Your task to perform on an android device: Open Youtube and go to "Your channel" Image 0: 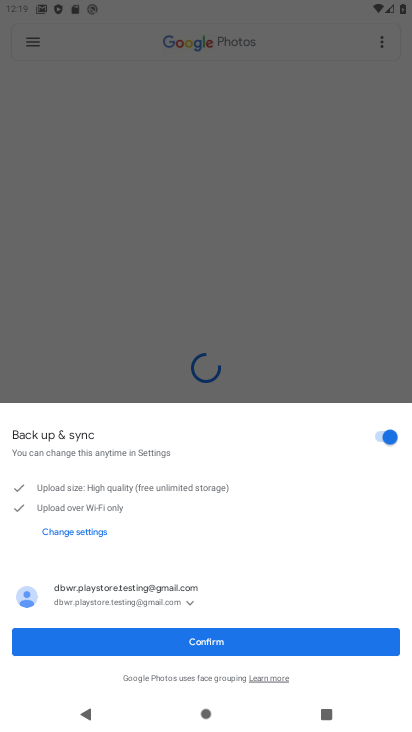
Step 0: click (275, 224)
Your task to perform on an android device: Open Youtube and go to "Your channel" Image 1: 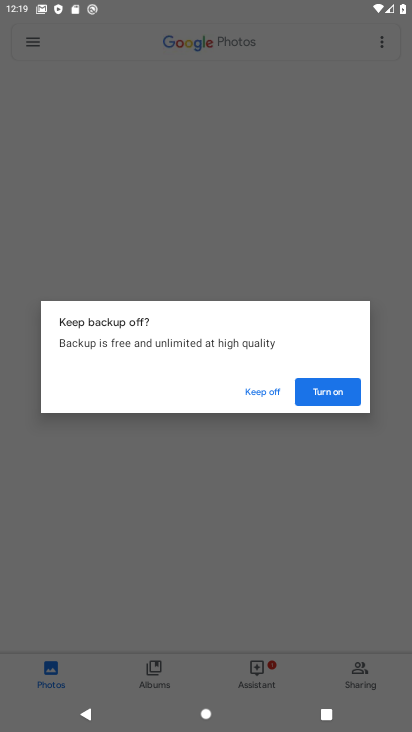
Step 1: press home button
Your task to perform on an android device: Open Youtube and go to "Your channel" Image 2: 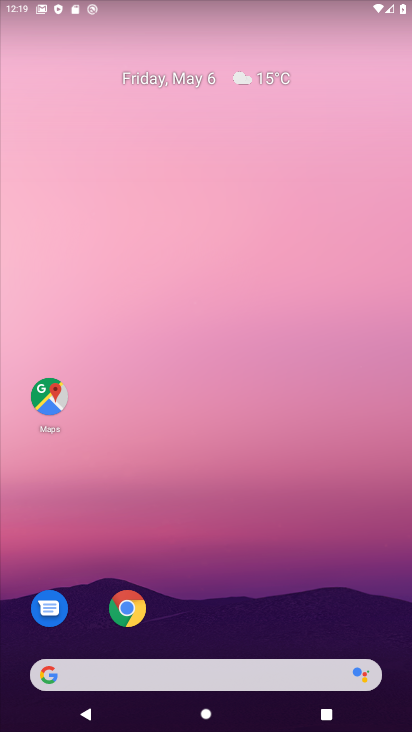
Step 2: drag from (179, 606) to (185, 296)
Your task to perform on an android device: Open Youtube and go to "Your channel" Image 3: 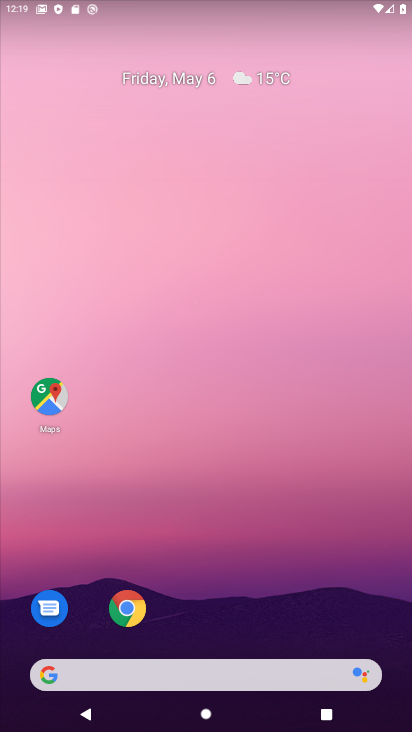
Step 3: drag from (244, 568) to (254, 280)
Your task to perform on an android device: Open Youtube and go to "Your channel" Image 4: 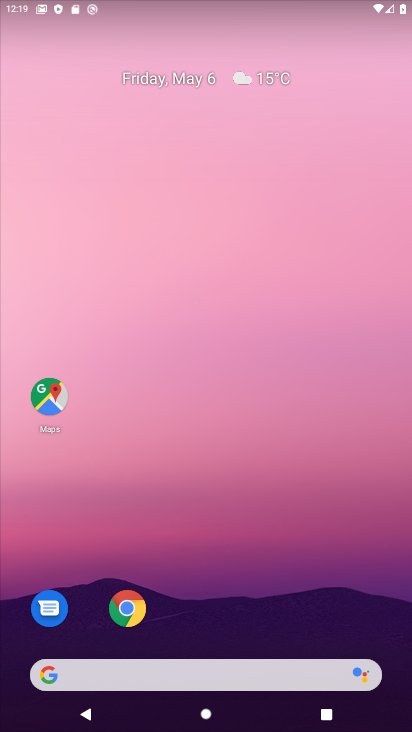
Step 4: drag from (203, 639) to (210, 233)
Your task to perform on an android device: Open Youtube and go to "Your channel" Image 5: 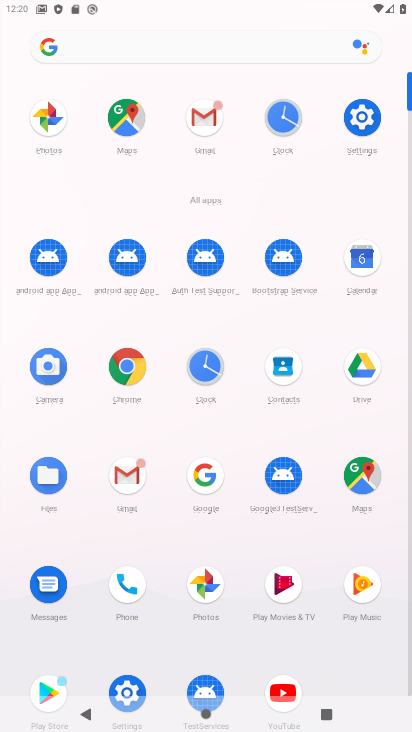
Step 5: drag from (229, 634) to (250, 351)
Your task to perform on an android device: Open Youtube and go to "Your channel" Image 6: 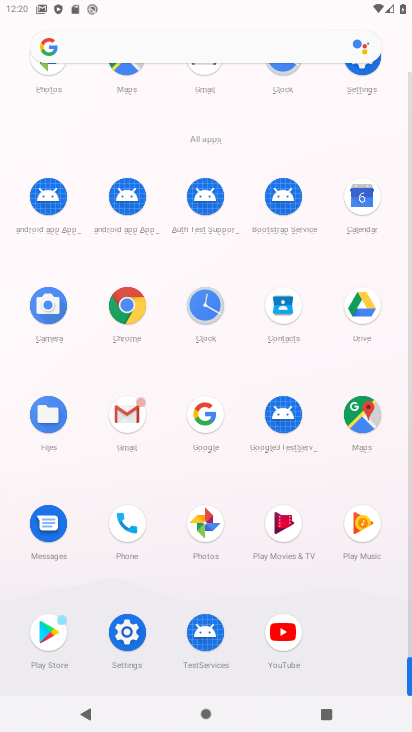
Step 6: click (280, 625)
Your task to perform on an android device: Open Youtube and go to "Your channel" Image 7: 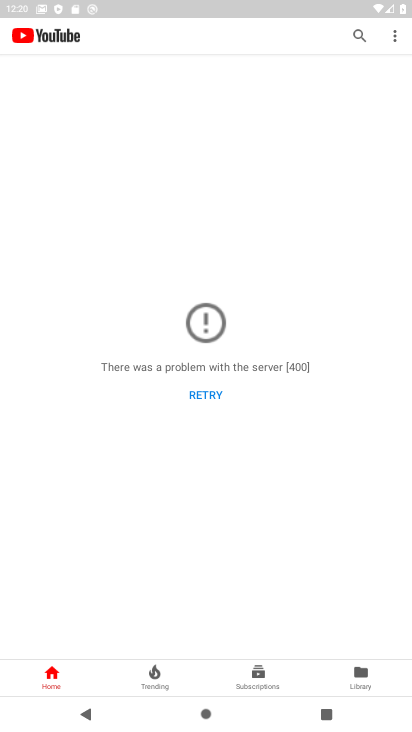
Step 7: click (348, 675)
Your task to perform on an android device: Open Youtube and go to "Your channel" Image 8: 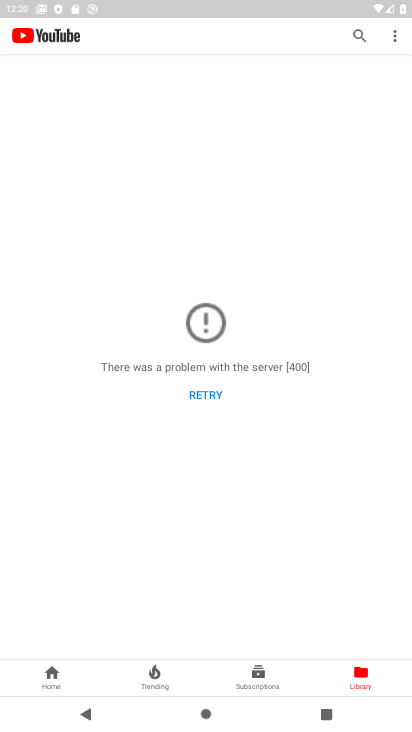
Step 8: click (203, 397)
Your task to perform on an android device: Open Youtube and go to "Your channel" Image 9: 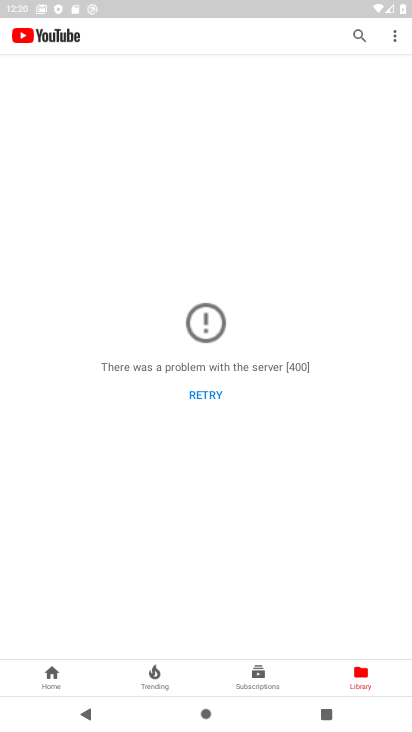
Step 9: click (361, 666)
Your task to perform on an android device: Open Youtube and go to "Your channel" Image 10: 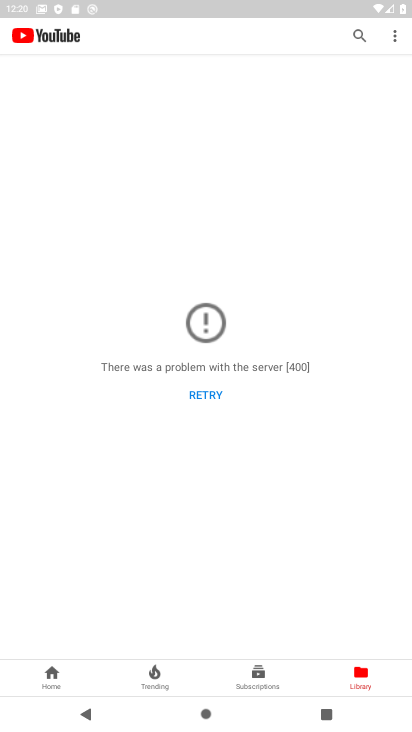
Step 10: click (361, 666)
Your task to perform on an android device: Open Youtube and go to "Your channel" Image 11: 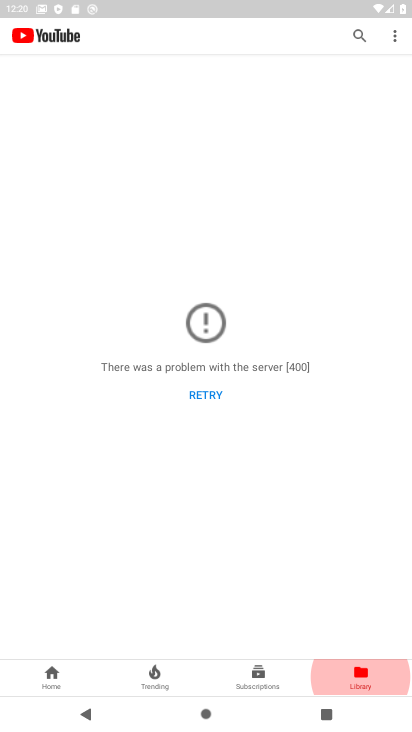
Step 11: click (361, 666)
Your task to perform on an android device: Open Youtube and go to "Your channel" Image 12: 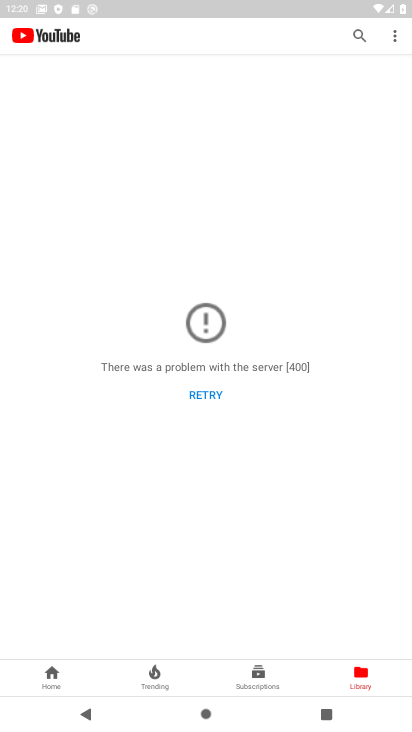
Step 12: click (198, 389)
Your task to perform on an android device: Open Youtube and go to "Your channel" Image 13: 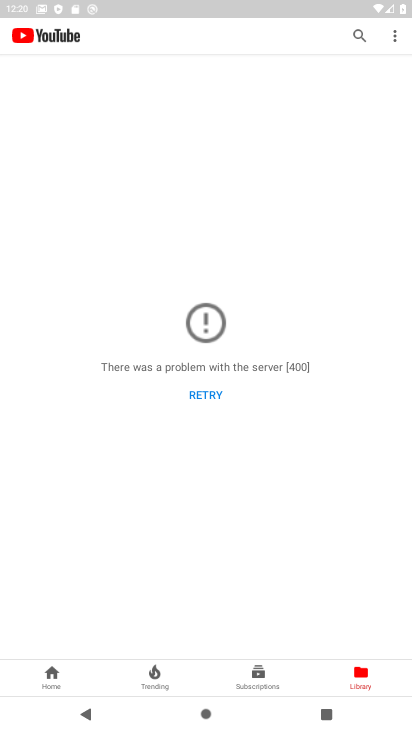
Step 13: click (396, 41)
Your task to perform on an android device: Open Youtube and go to "Your channel" Image 14: 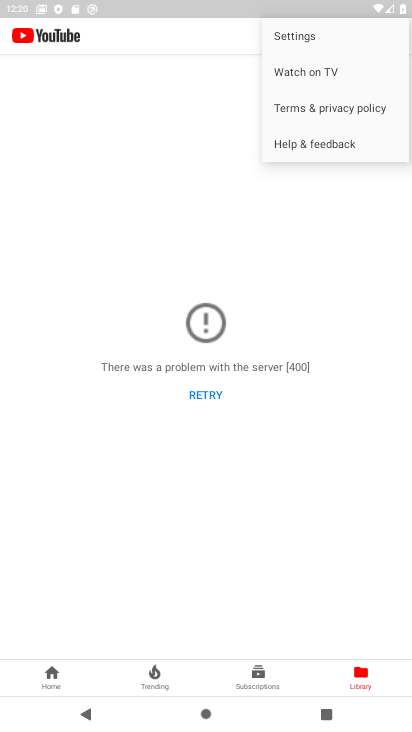
Step 14: click (304, 38)
Your task to perform on an android device: Open Youtube and go to "Your channel" Image 15: 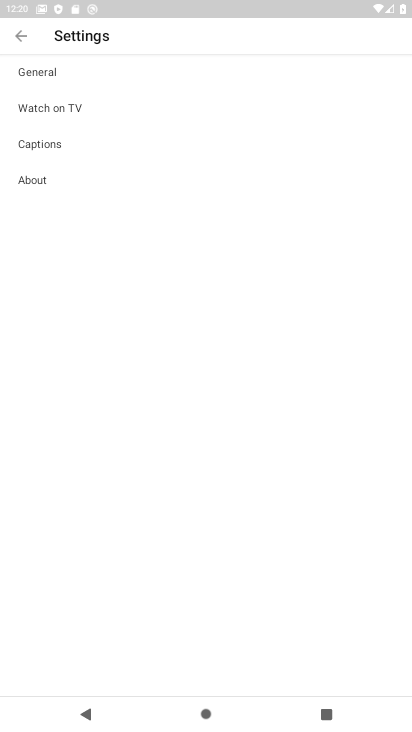
Step 15: click (15, 45)
Your task to perform on an android device: Open Youtube and go to "Your channel" Image 16: 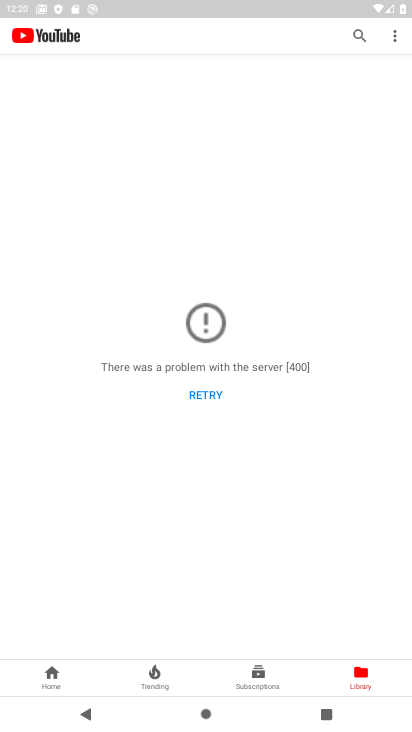
Step 16: click (361, 685)
Your task to perform on an android device: Open Youtube and go to "Your channel" Image 17: 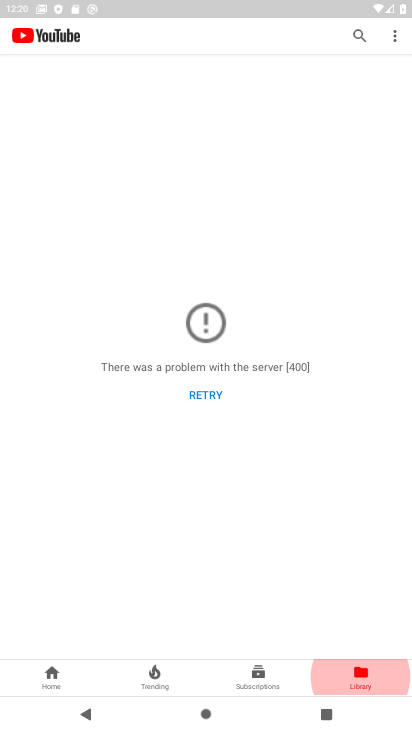
Step 17: click (361, 684)
Your task to perform on an android device: Open Youtube and go to "Your channel" Image 18: 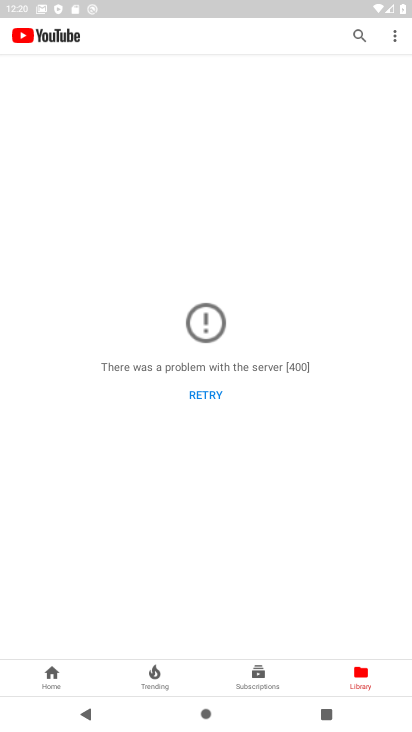
Step 18: task complete